Your task to perform on an android device: Open CNN.com Image 0: 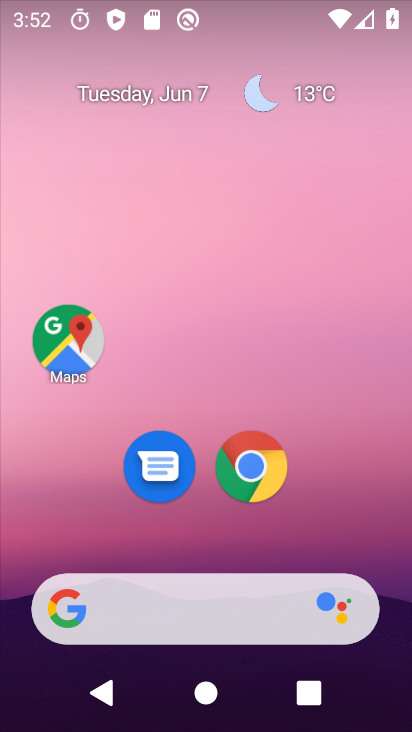
Step 0: click (246, 477)
Your task to perform on an android device: Open CNN.com Image 1: 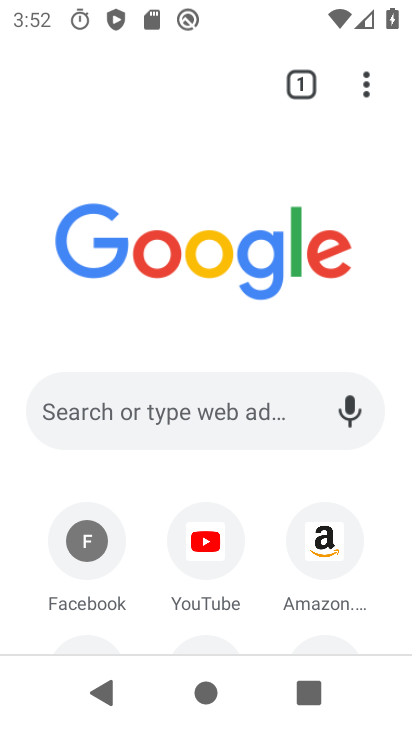
Step 1: click (232, 399)
Your task to perform on an android device: Open CNN.com Image 2: 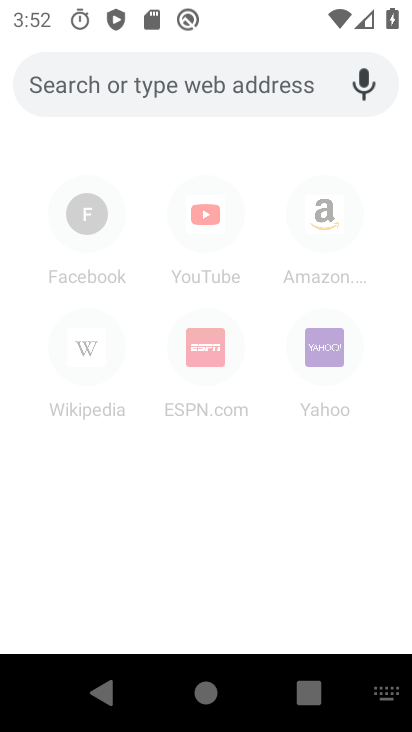
Step 2: type "cnn.com"
Your task to perform on an android device: Open CNN.com Image 3: 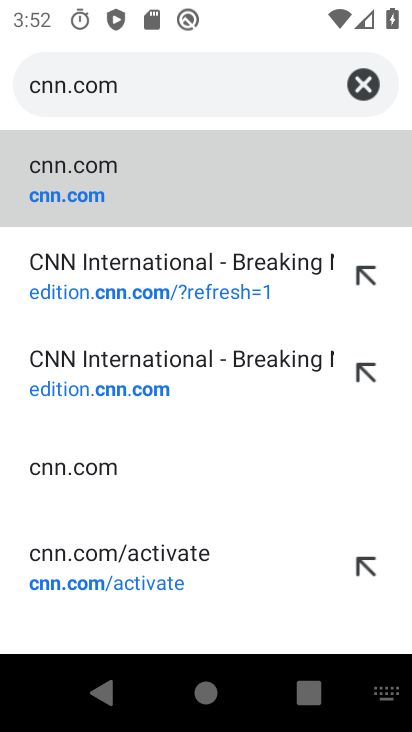
Step 3: click (87, 203)
Your task to perform on an android device: Open CNN.com Image 4: 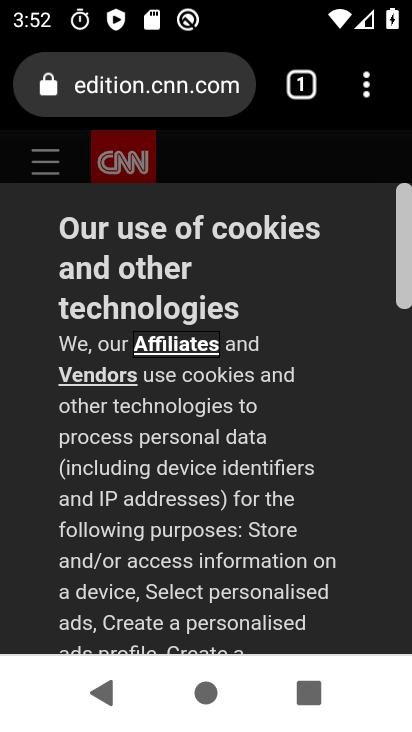
Step 4: task complete